Your task to perform on an android device: Open the map Image 0: 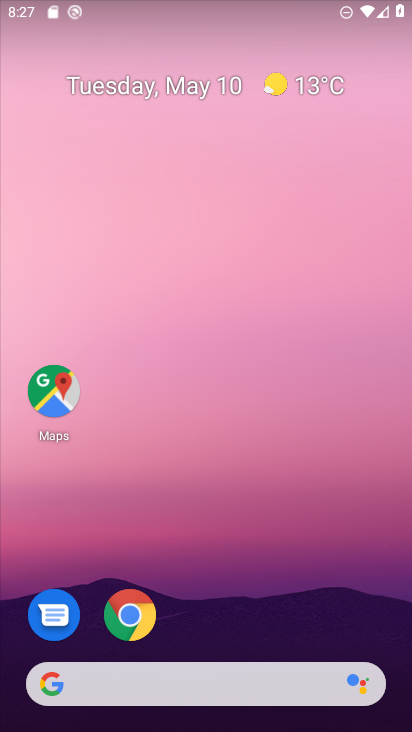
Step 0: click (52, 393)
Your task to perform on an android device: Open the map Image 1: 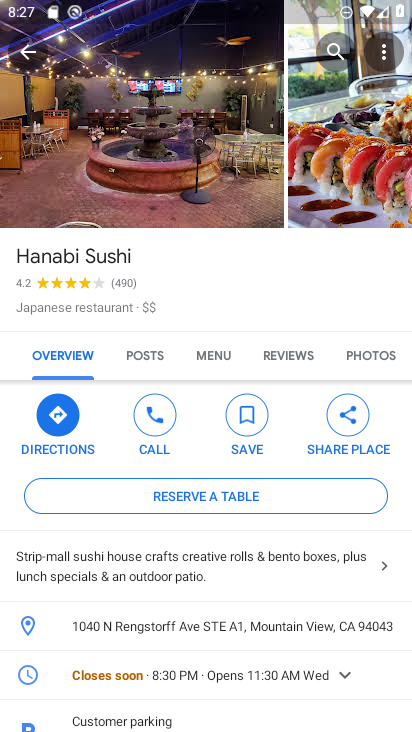
Step 1: task complete